Your task to perform on an android device: Go to Wikipedia Image 0: 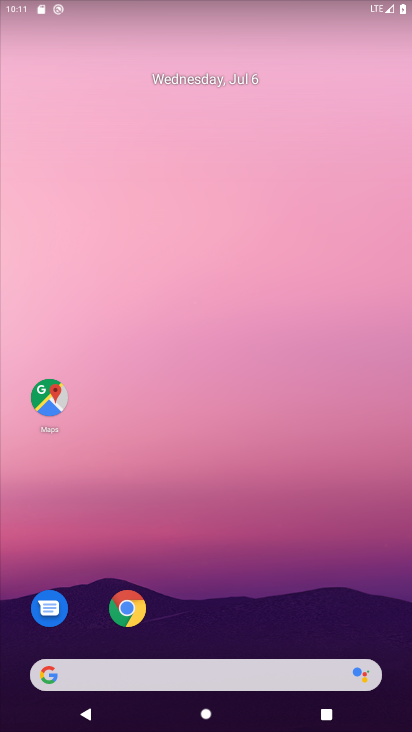
Step 0: drag from (267, 571) to (320, 10)
Your task to perform on an android device: Go to Wikipedia Image 1: 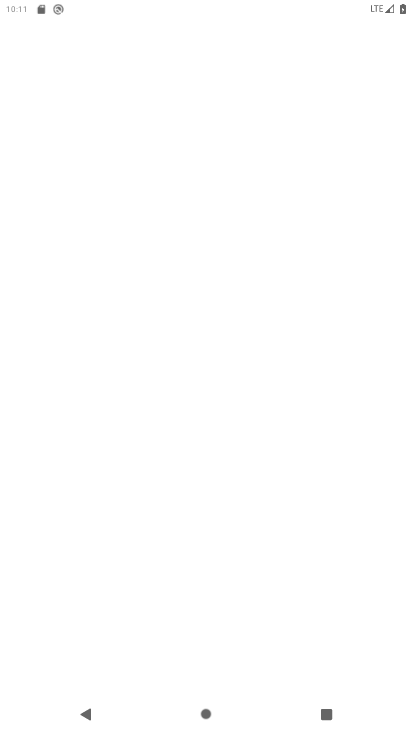
Step 1: press home button
Your task to perform on an android device: Go to Wikipedia Image 2: 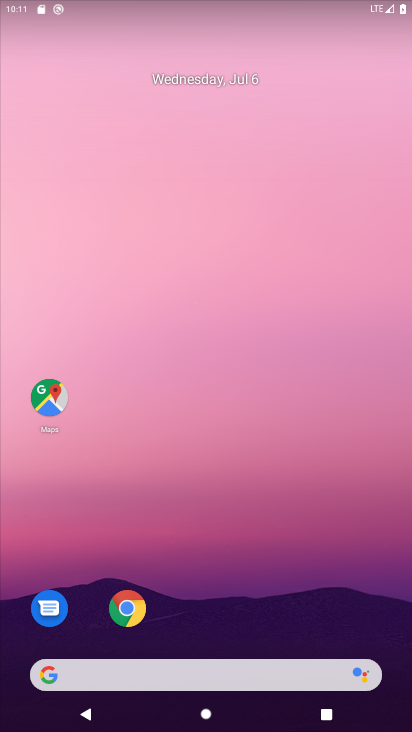
Step 2: click (118, 616)
Your task to perform on an android device: Go to Wikipedia Image 3: 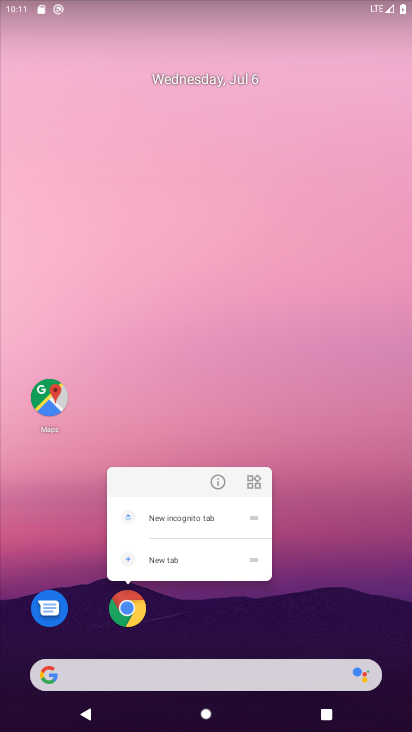
Step 3: click (139, 617)
Your task to perform on an android device: Go to Wikipedia Image 4: 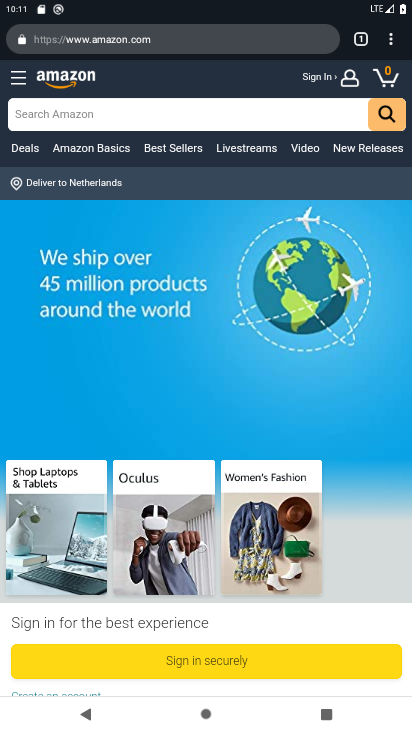
Step 4: click (210, 44)
Your task to perform on an android device: Go to Wikipedia Image 5: 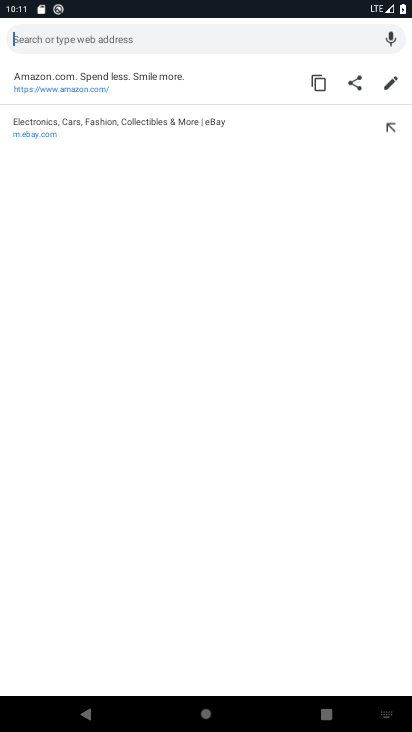
Step 5: type "wikipedia"
Your task to perform on an android device: Go to Wikipedia Image 6: 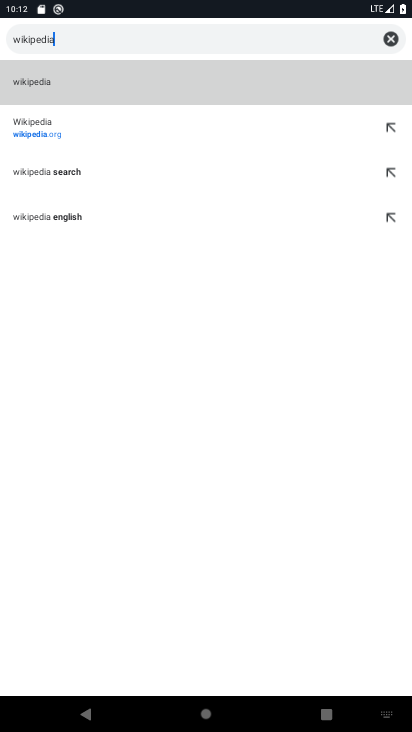
Step 6: click (49, 131)
Your task to perform on an android device: Go to Wikipedia Image 7: 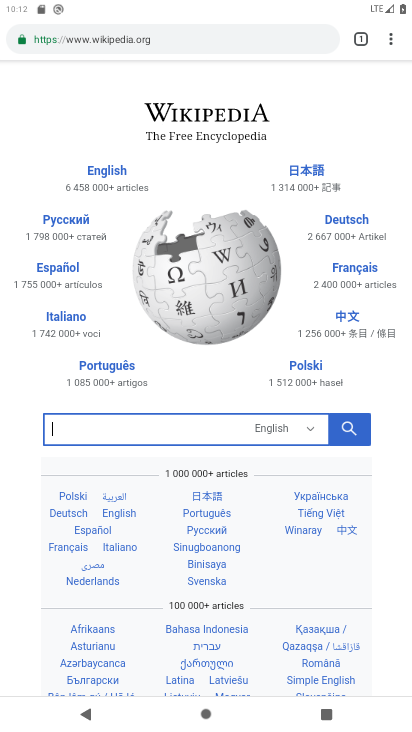
Step 7: task complete